Your task to perform on an android device: Open Google Image 0: 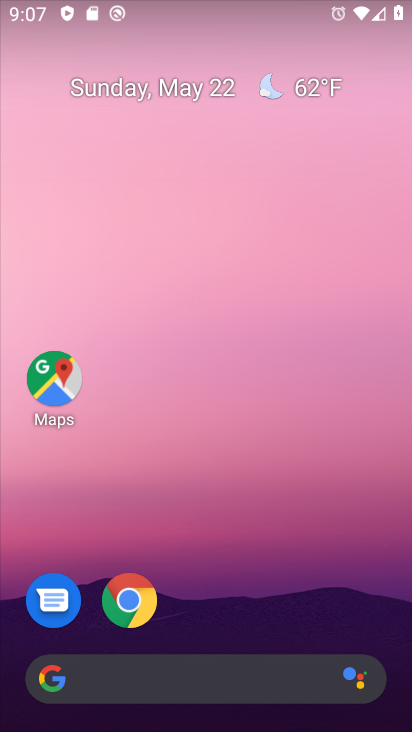
Step 0: drag from (230, 615) to (239, 150)
Your task to perform on an android device: Open Google Image 1: 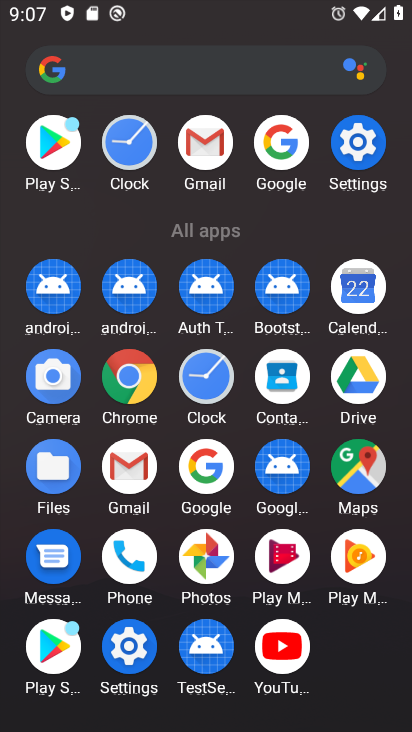
Step 1: click (206, 465)
Your task to perform on an android device: Open Google Image 2: 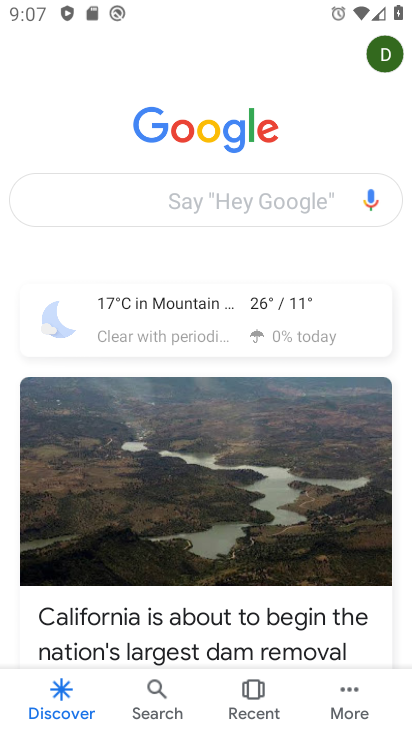
Step 2: task complete